Your task to perform on an android device: Go to eBay Image 0: 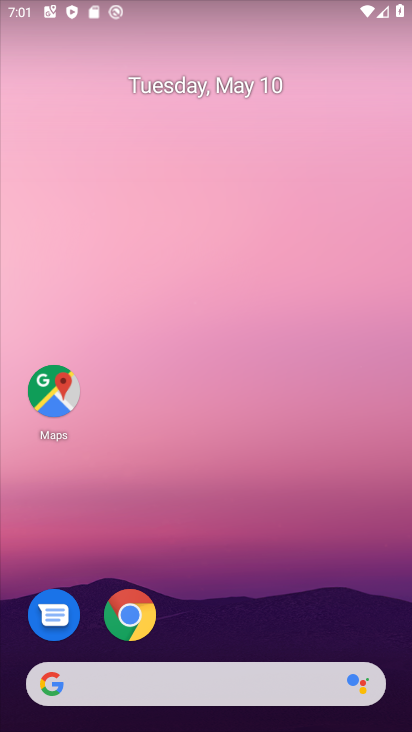
Step 0: click (128, 610)
Your task to perform on an android device: Go to eBay Image 1: 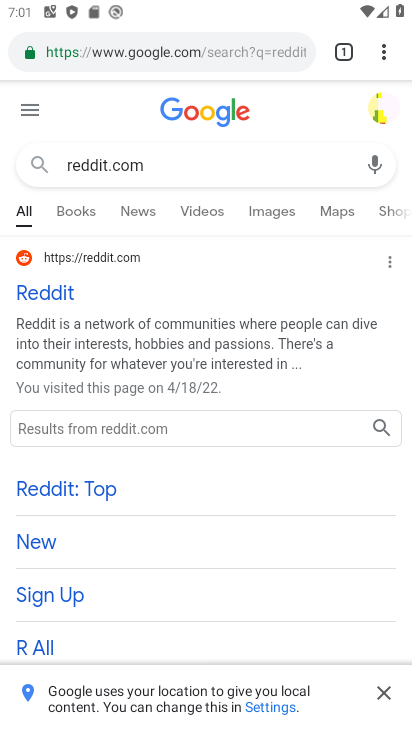
Step 1: click (380, 54)
Your task to perform on an android device: Go to eBay Image 2: 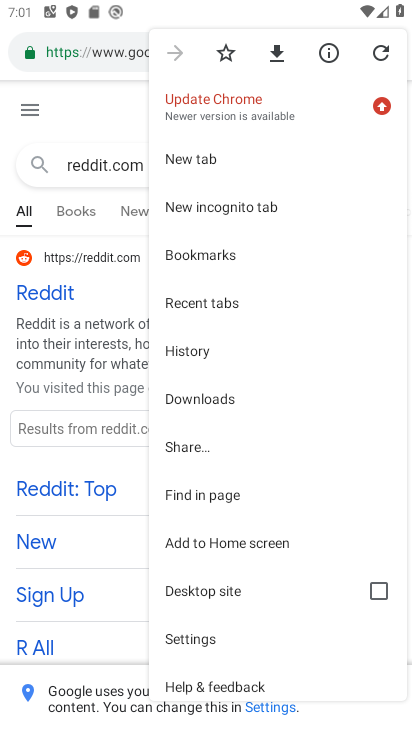
Step 2: click (210, 159)
Your task to perform on an android device: Go to eBay Image 3: 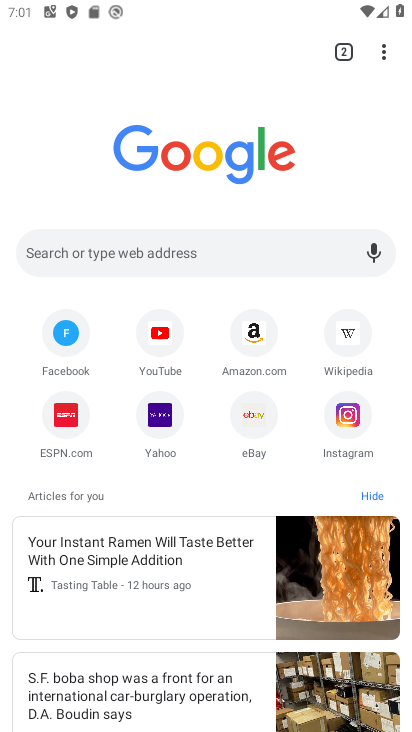
Step 3: click (251, 431)
Your task to perform on an android device: Go to eBay Image 4: 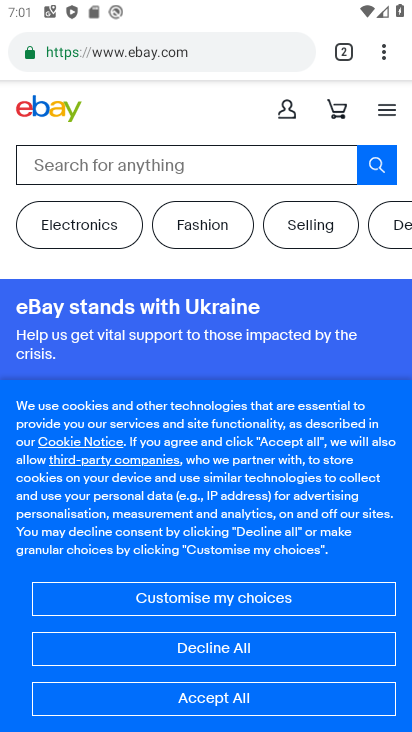
Step 4: task complete